Your task to perform on an android device: check android version Image 0: 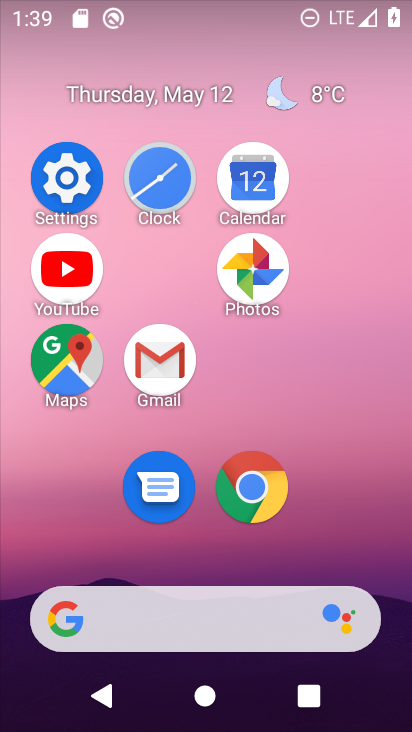
Step 0: click (84, 176)
Your task to perform on an android device: check android version Image 1: 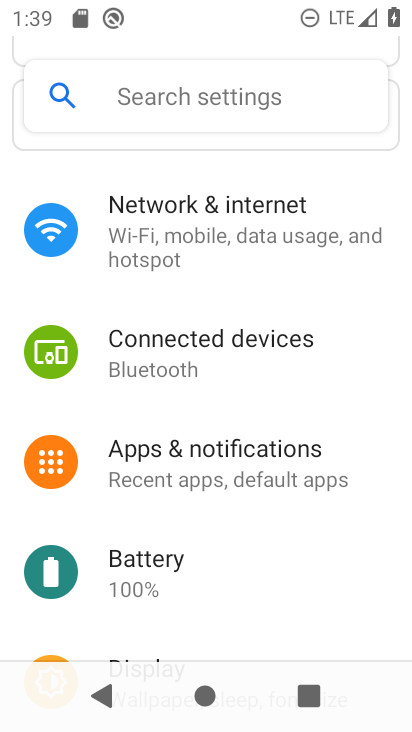
Step 1: drag from (239, 602) to (309, 109)
Your task to perform on an android device: check android version Image 2: 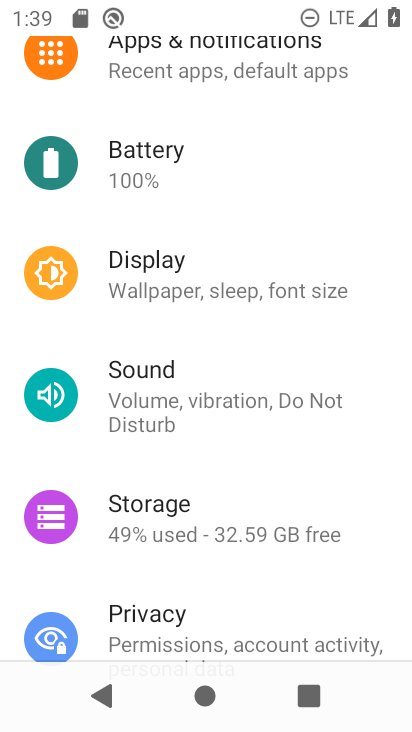
Step 2: drag from (235, 573) to (307, 68)
Your task to perform on an android device: check android version Image 3: 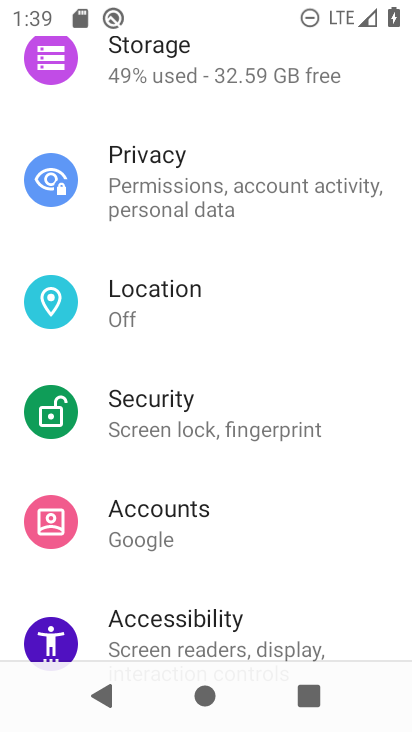
Step 3: drag from (230, 508) to (308, 94)
Your task to perform on an android device: check android version Image 4: 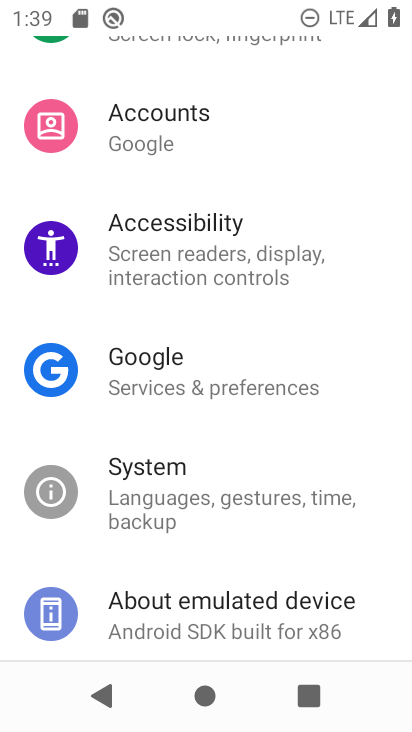
Step 4: click (238, 596)
Your task to perform on an android device: check android version Image 5: 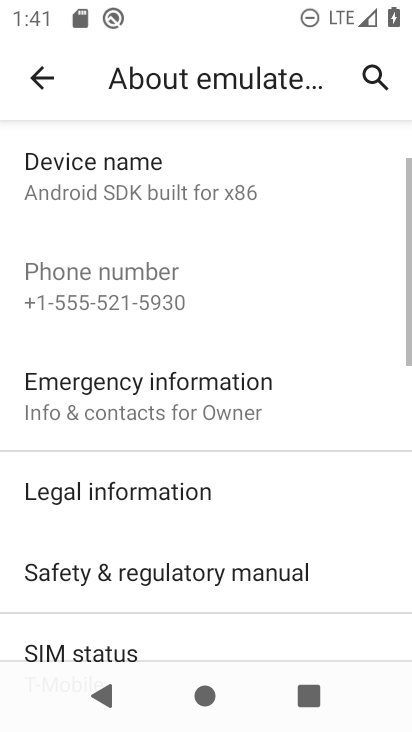
Step 5: drag from (246, 524) to (249, 200)
Your task to perform on an android device: check android version Image 6: 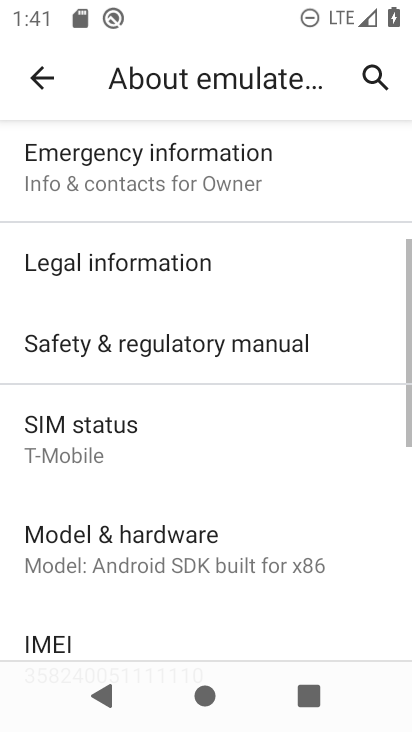
Step 6: drag from (236, 500) to (285, 189)
Your task to perform on an android device: check android version Image 7: 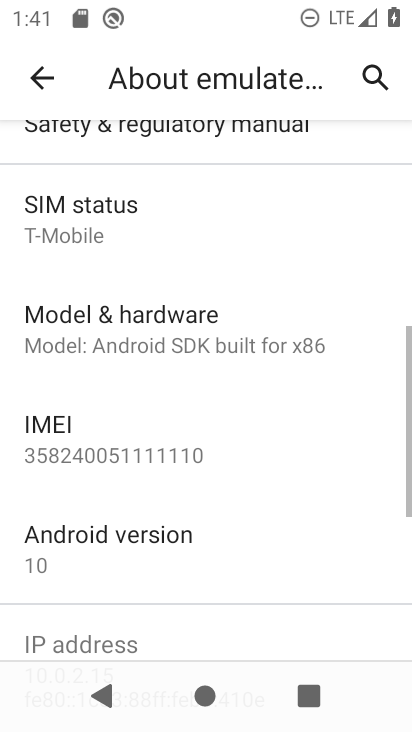
Step 7: click (205, 530)
Your task to perform on an android device: check android version Image 8: 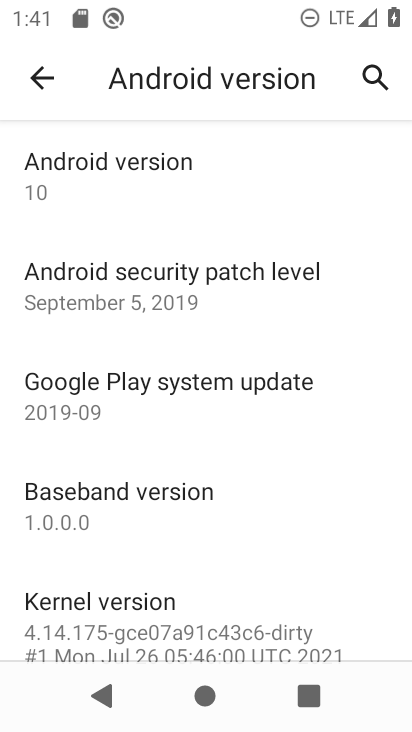
Step 8: task complete